Your task to perform on an android device: turn on bluetooth scan Image 0: 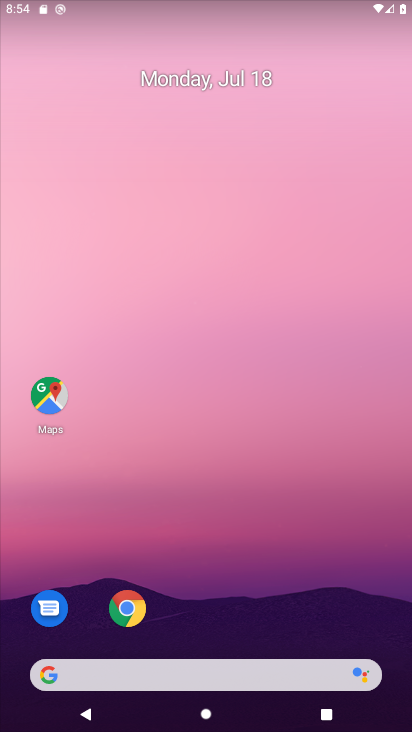
Step 0: drag from (189, 679) to (201, 24)
Your task to perform on an android device: turn on bluetooth scan Image 1: 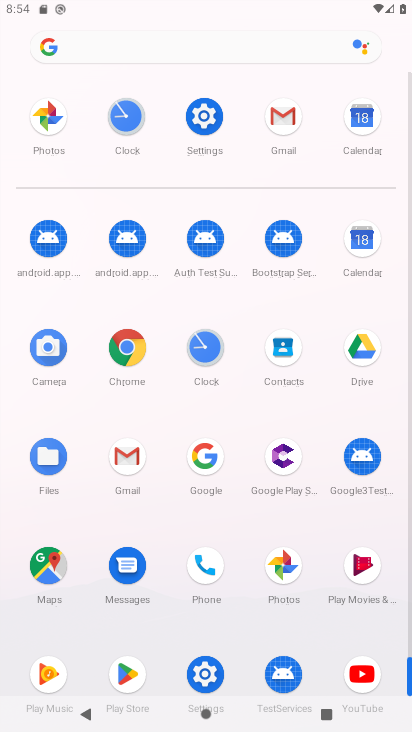
Step 1: click (204, 115)
Your task to perform on an android device: turn on bluetooth scan Image 2: 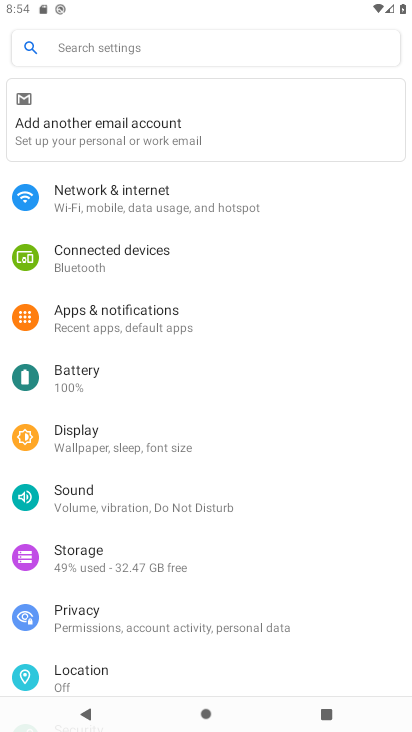
Step 2: drag from (107, 532) to (178, 453)
Your task to perform on an android device: turn on bluetooth scan Image 3: 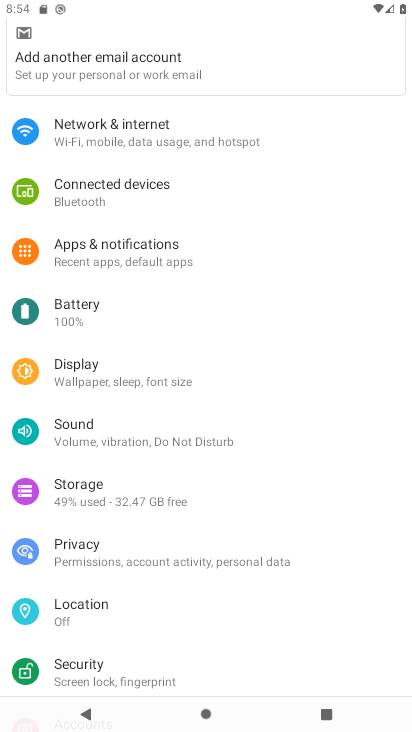
Step 3: click (98, 606)
Your task to perform on an android device: turn on bluetooth scan Image 4: 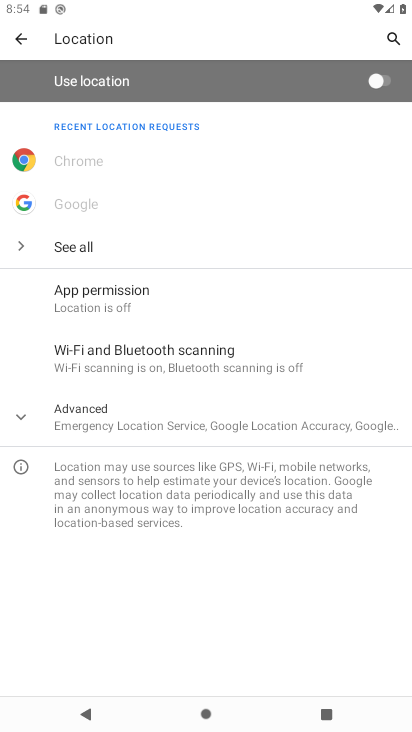
Step 4: click (168, 366)
Your task to perform on an android device: turn on bluetooth scan Image 5: 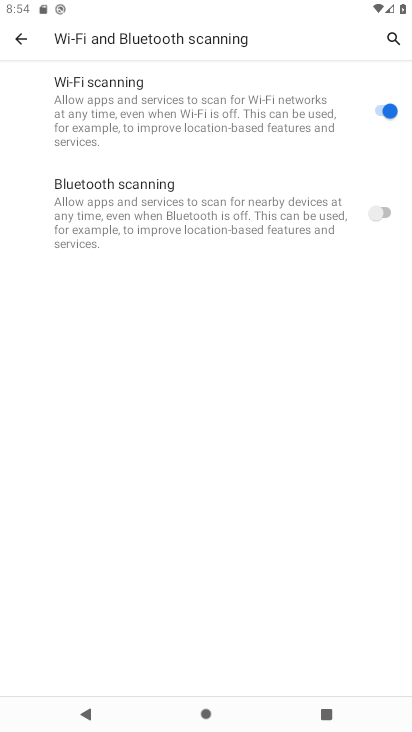
Step 5: click (374, 212)
Your task to perform on an android device: turn on bluetooth scan Image 6: 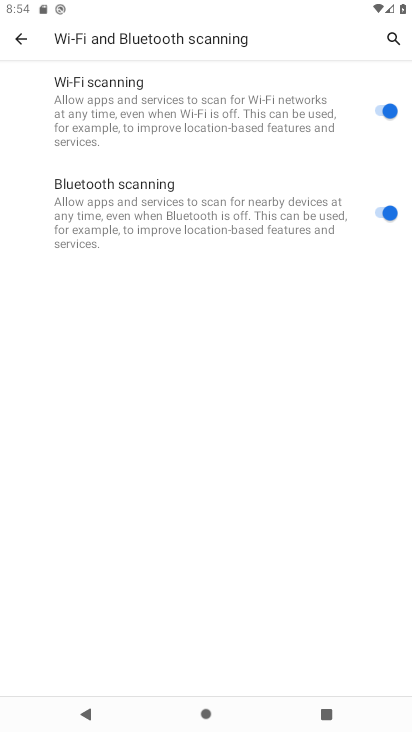
Step 6: task complete